Your task to perform on an android device: set the stopwatch Image 0: 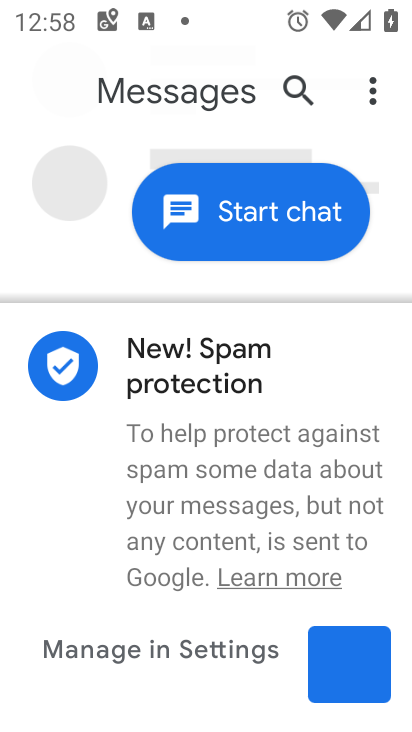
Step 0: press home button
Your task to perform on an android device: set the stopwatch Image 1: 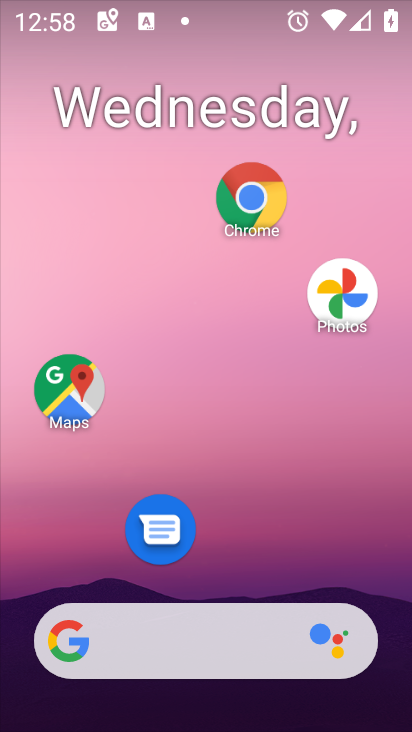
Step 1: drag from (158, 552) to (290, 119)
Your task to perform on an android device: set the stopwatch Image 2: 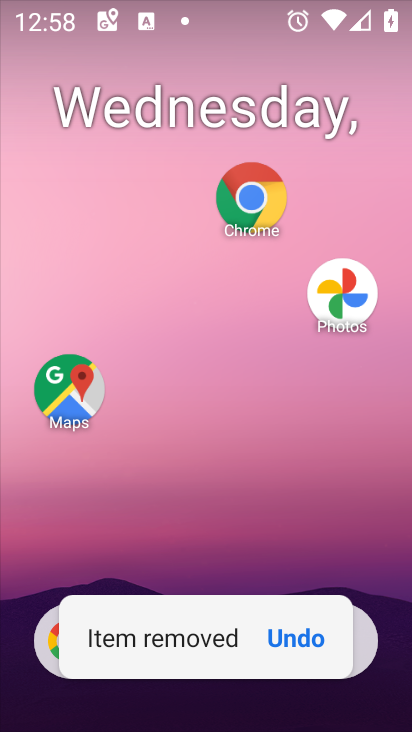
Step 2: drag from (258, 553) to (249, 163)
Your task to perform on an android device: set the stopwatch Image 3: 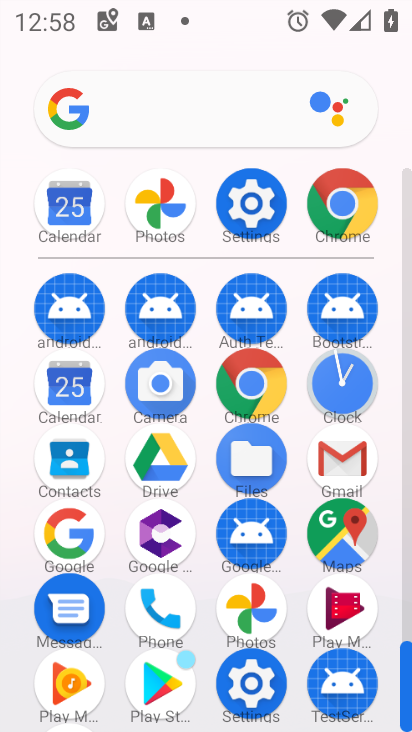
Step 3: click (341, 379)
Your task to perform on an android device: set the stopwatch Image 4: 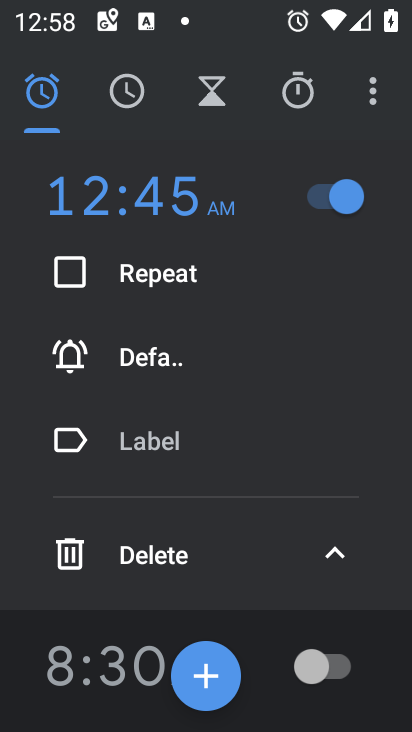
Step 4: click (294, 107)
Your task to perform on an android device: set the stopwatch Image 5: 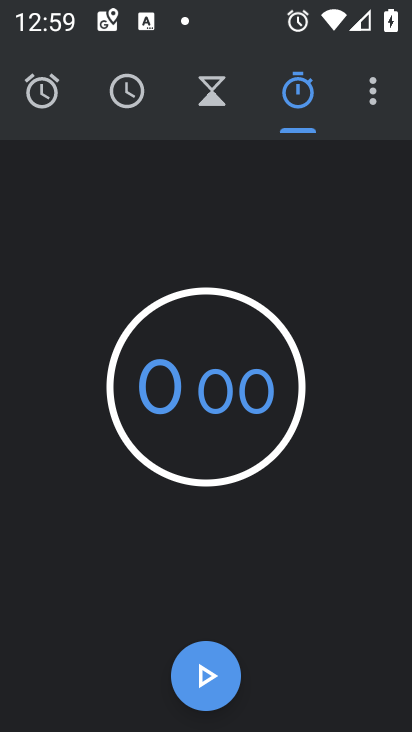
Step 5: click (181, 688)
Your task to perform on an android device: set the stopwatch Image 6: 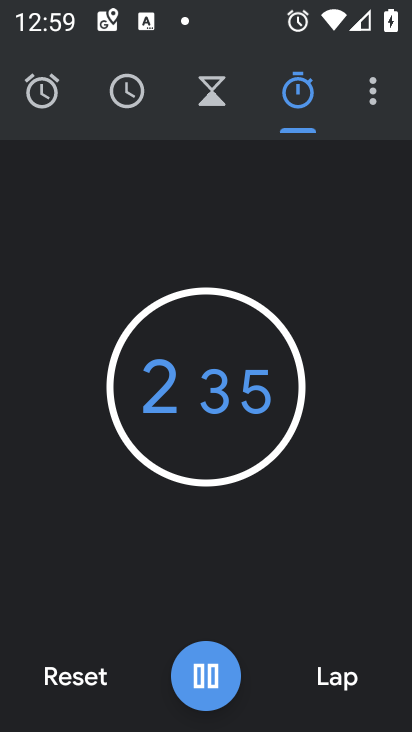
Step 6: task complete